Your task to perform on an android device: Go to internet settings Image 0: 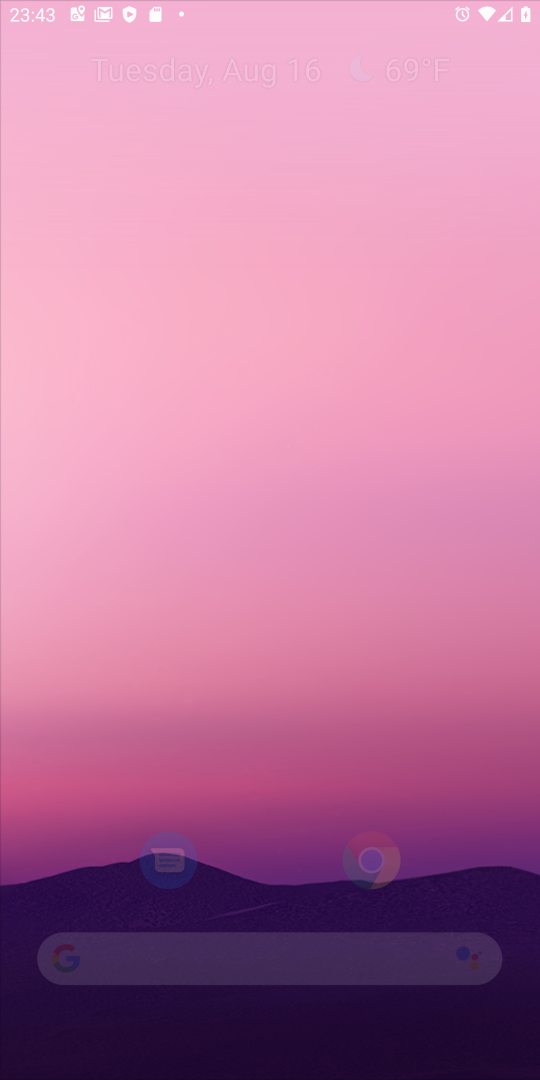
Step 0: press home button
Your task to perform on an android device: Go to internet settings Image 1: 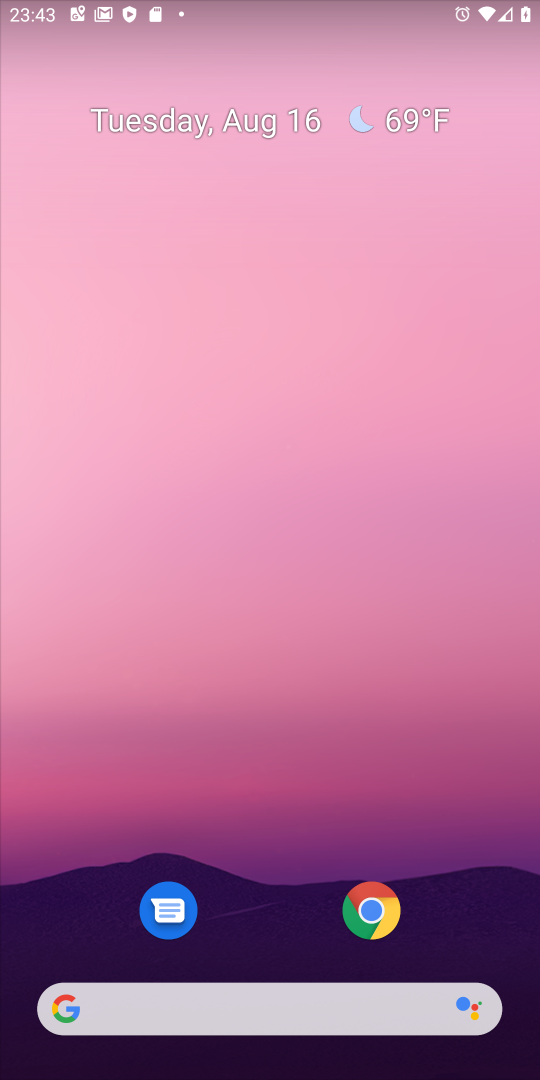
Step 1: press home button
Your task to perform on an android device: Go to internet settings Image 2: 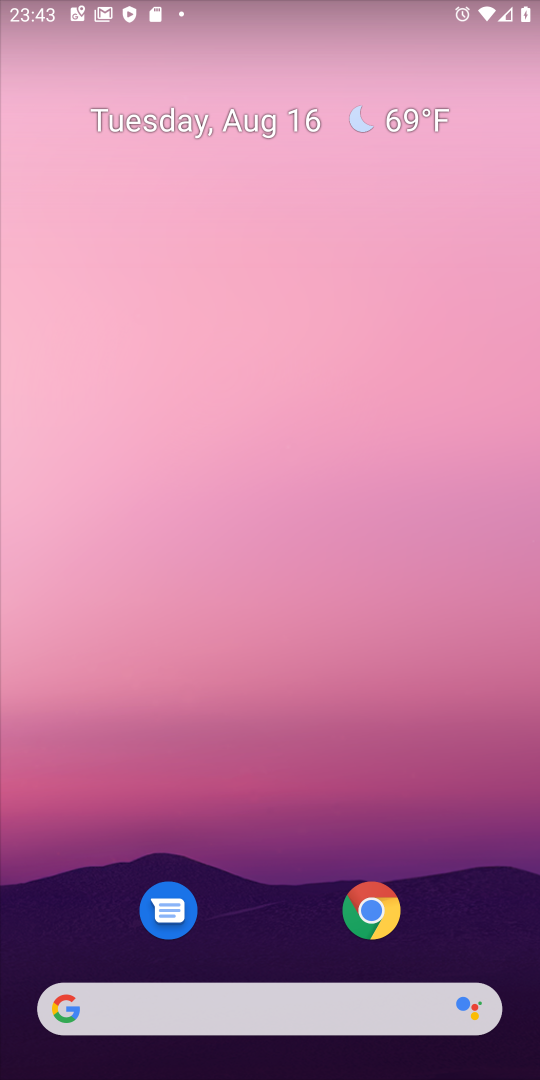
Step 2: drag from (245, 815) to (271, 124)
Your task to perform on an android device: Go to internet settings Image 3: 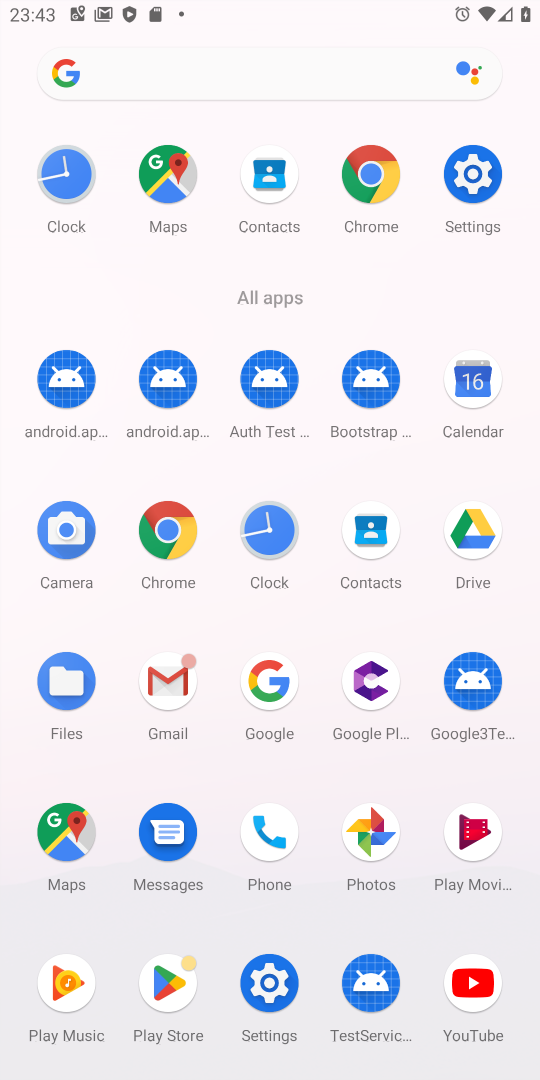
Step 3: click (258, 986)
Your task to perform on an android device: Go to internet settings Image 4: 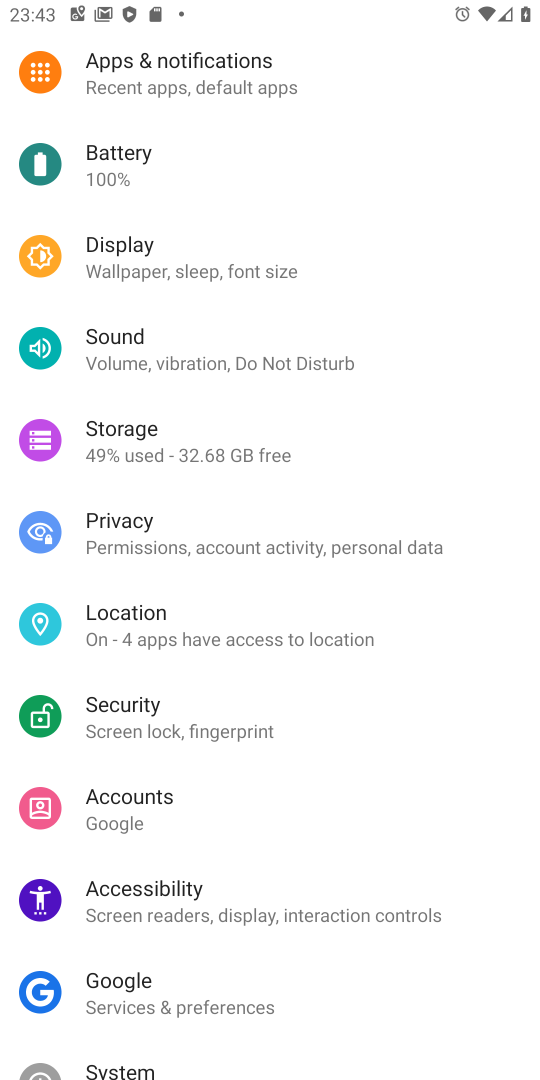
Step 4: drag from (245, 122) to (303, 638)
Your task to perform on an android device: Go to internet settings Image 5: 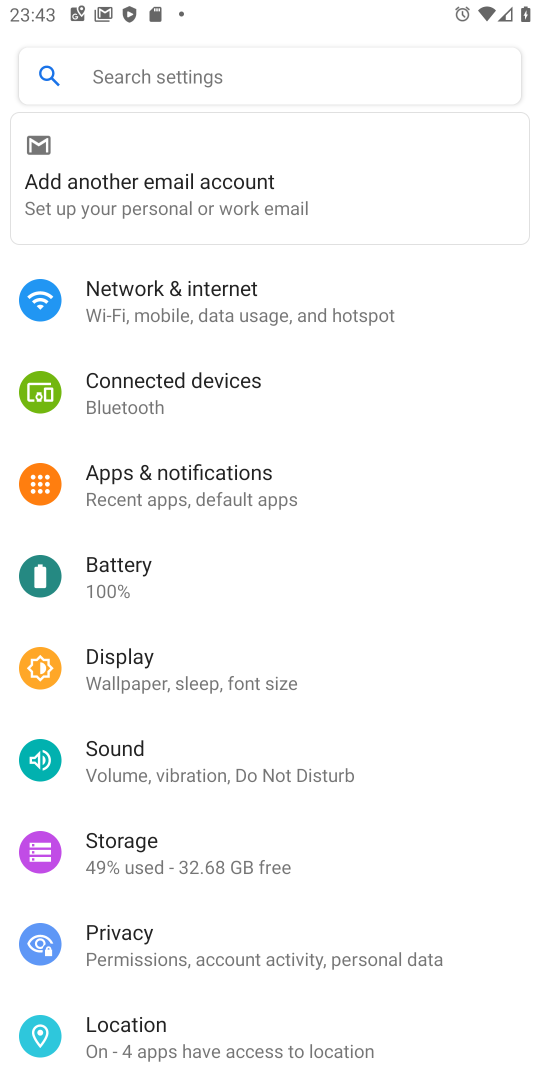
Step 5: click (187, 281)
Your task to perform on an android device: Go to internet settings Image 6: 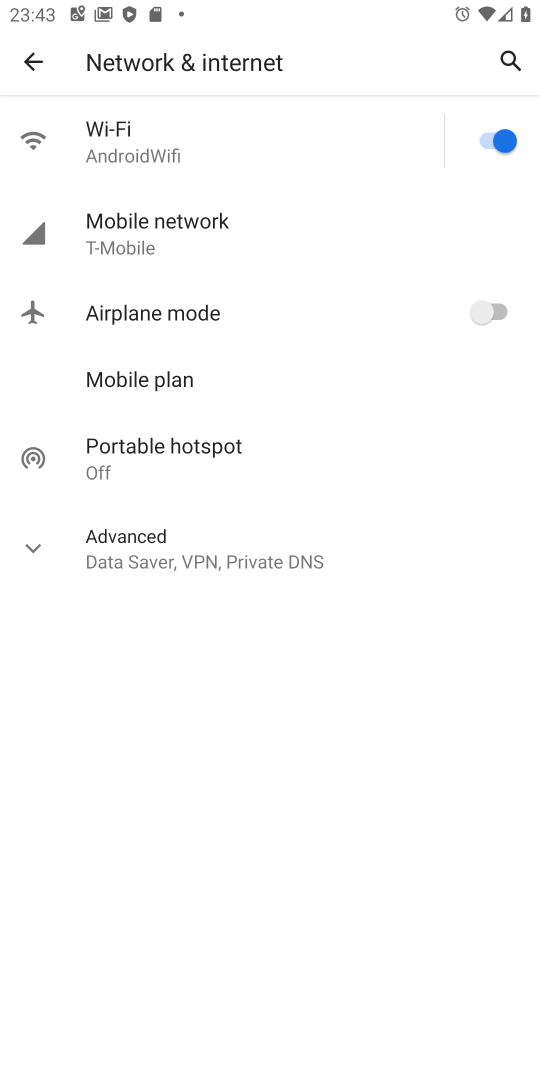
Step 6: task complete